Your task to perform on an android device: Clear the cart on newegg.com. Add "lg ultragear" to the cart on newegg.com Image 0: 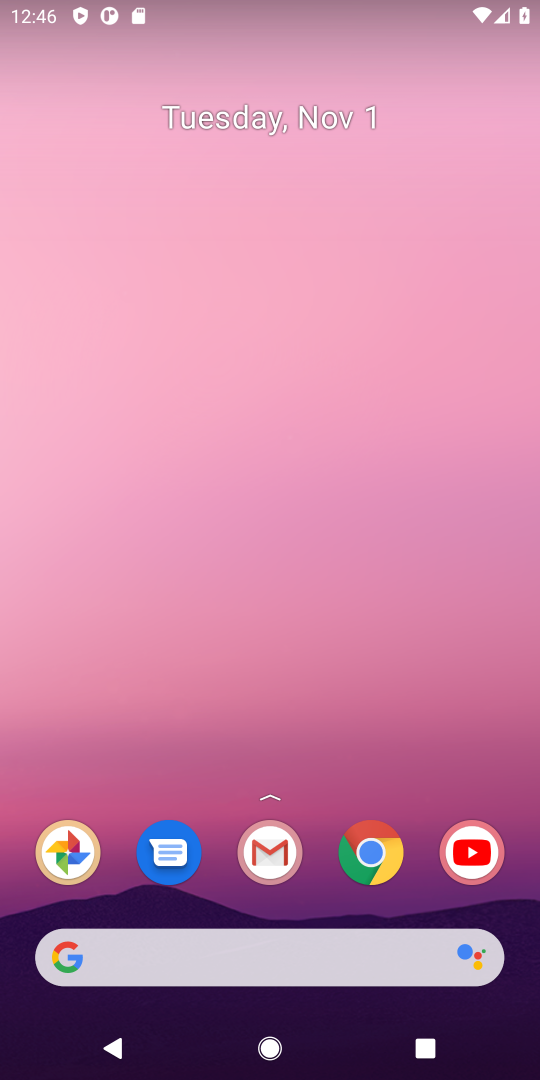
Step 0: click (390, 858)
Your task to perform on an android device: Clear the cart on newegg.com. Add "lg ultragear" to the cart on newegg.com Image 1: 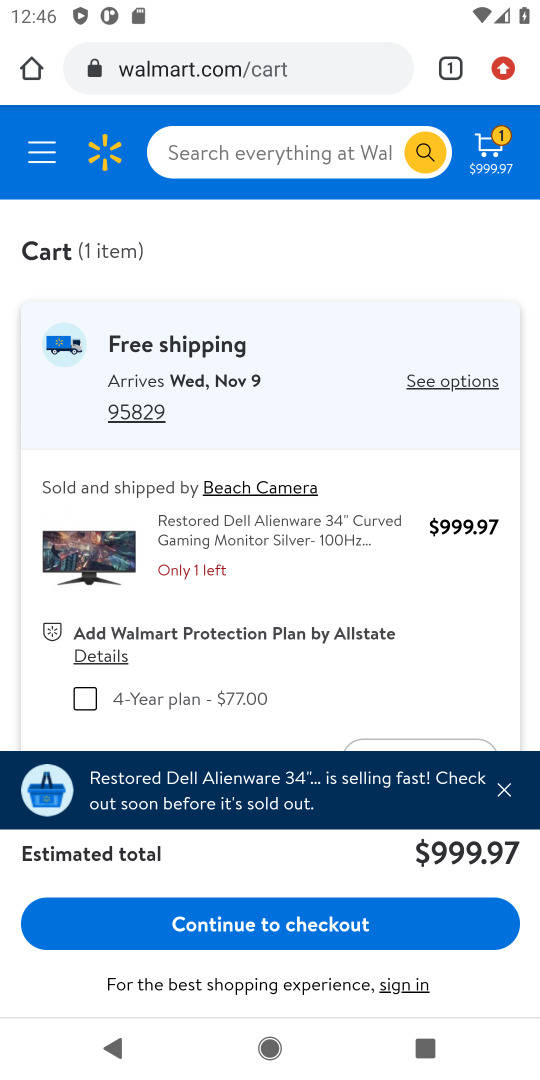
Step 1: click (291, 62)
Your task to perform on an android device: Clear the cart on newegg.com. Add "lg ultragear" to the cart on newegg.com Image 2: 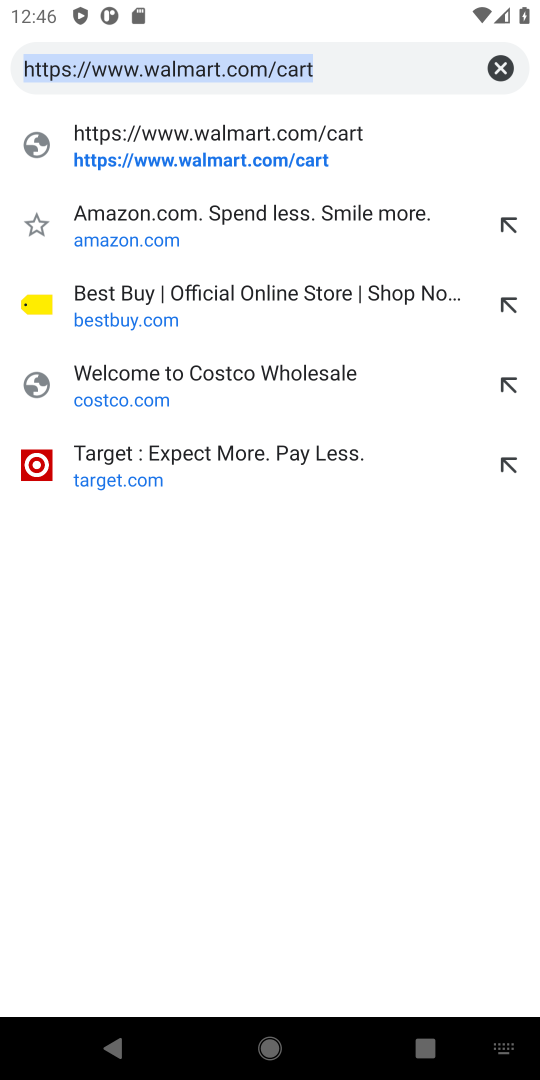
Step 2: type "newegg.com"
Your task to perform on an android device: Clear the cart on newegg.com. Add "lg ultragear" to the cart on newegg.com Image 3: 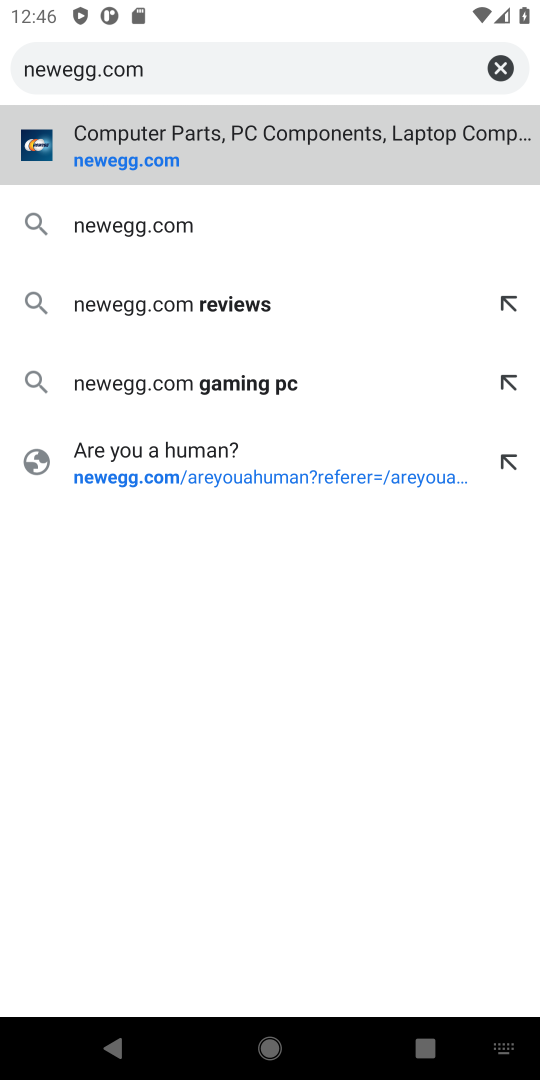
Step 3: type ""
Your task to perform on an android device: Clear the cart on newegg.com. Add "lg ultragear" to the cart on newegg.com Image 4: 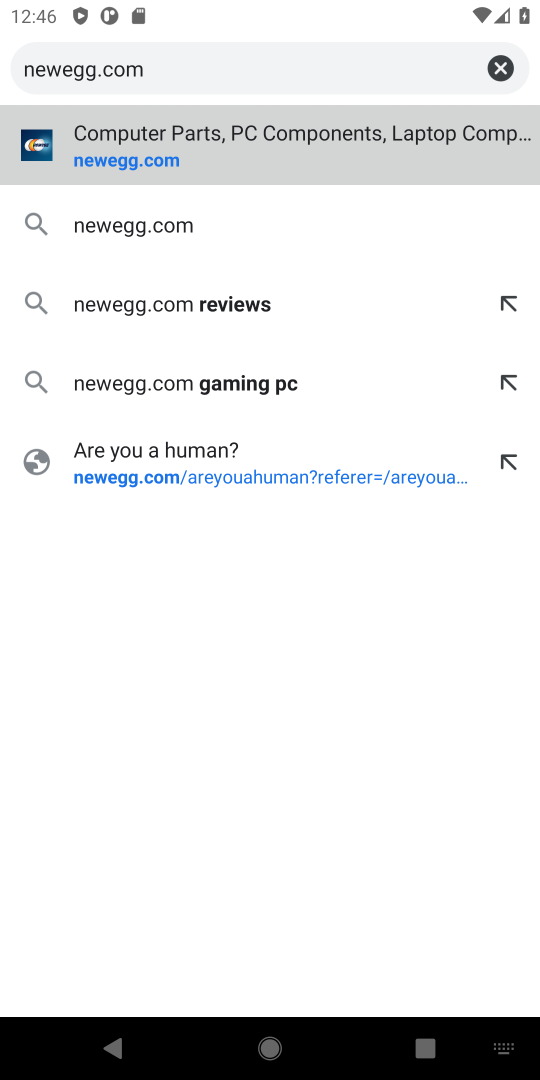
Step 4: press enter
Your task to perform on an android device: Clear the cart on newegg.com. Add "lg ultragear" to the cart on newegg.com Image 5: 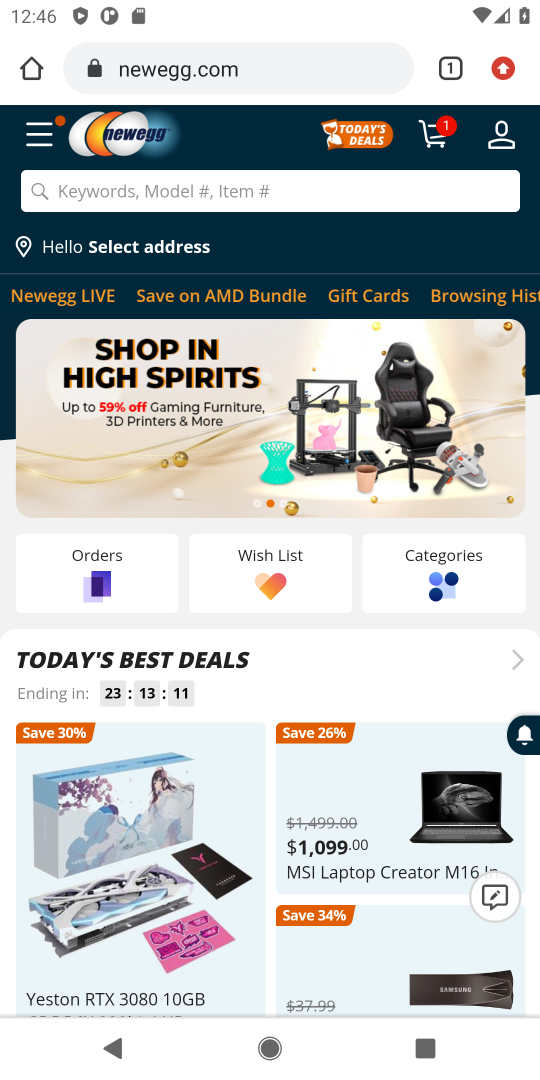
Step 5: click (437, 131)
Your task to perform on an android device: Clear the cart on newegg.com. Add "lg ultragear" to the cart on newegg.com Image 6: 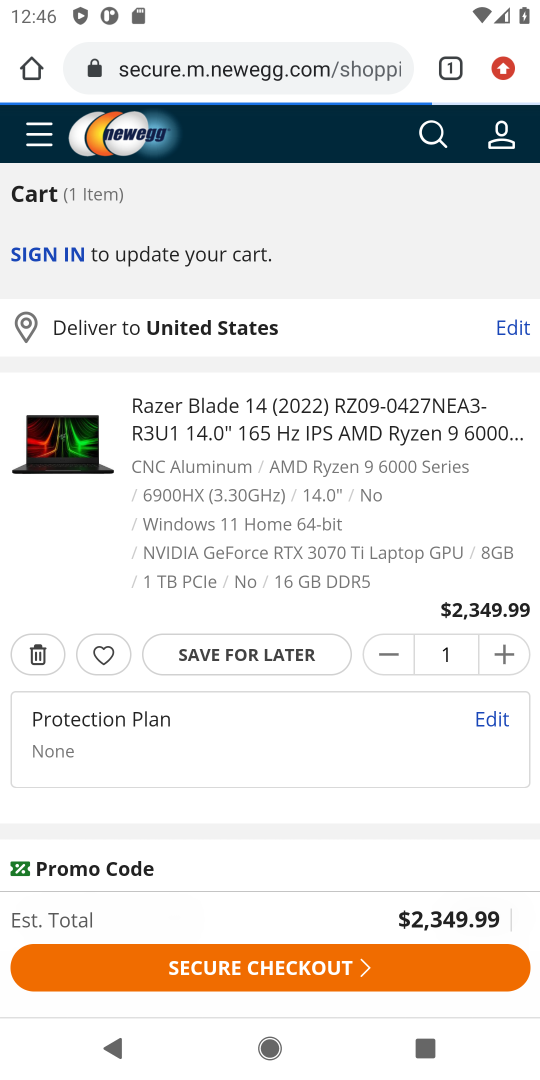
Step 6: click (29, 651)
Your task to perform on an android device: Clear the cart on newegg.com. Add "lg ultragear" to the cart on newegg.com Image 7: 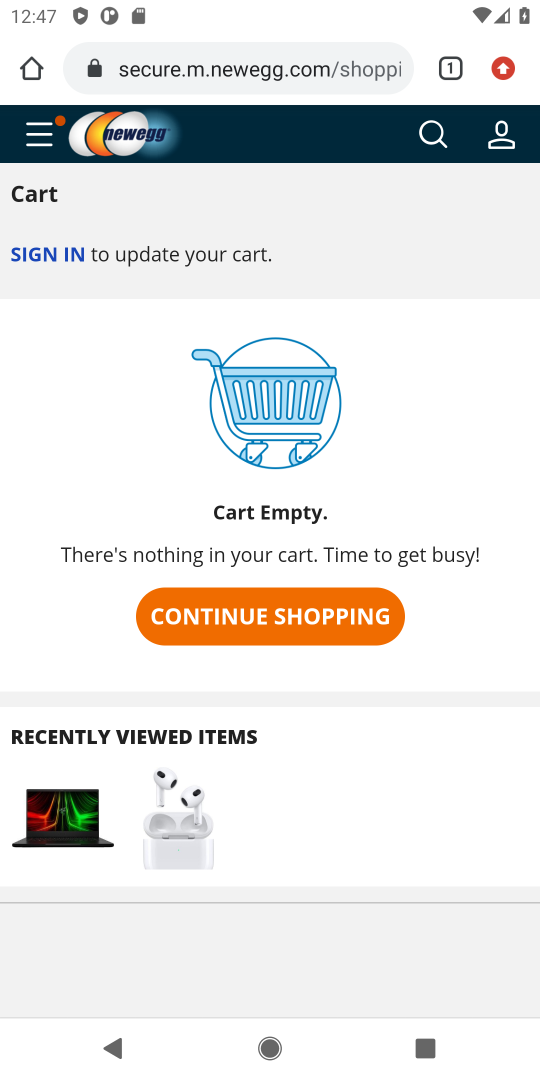
Step 7: click (338, 637)
Your task to perform on an android device: Clear the cart on newegg.com. Add "lg ultragear" to the cart on newegg.com Image 8: 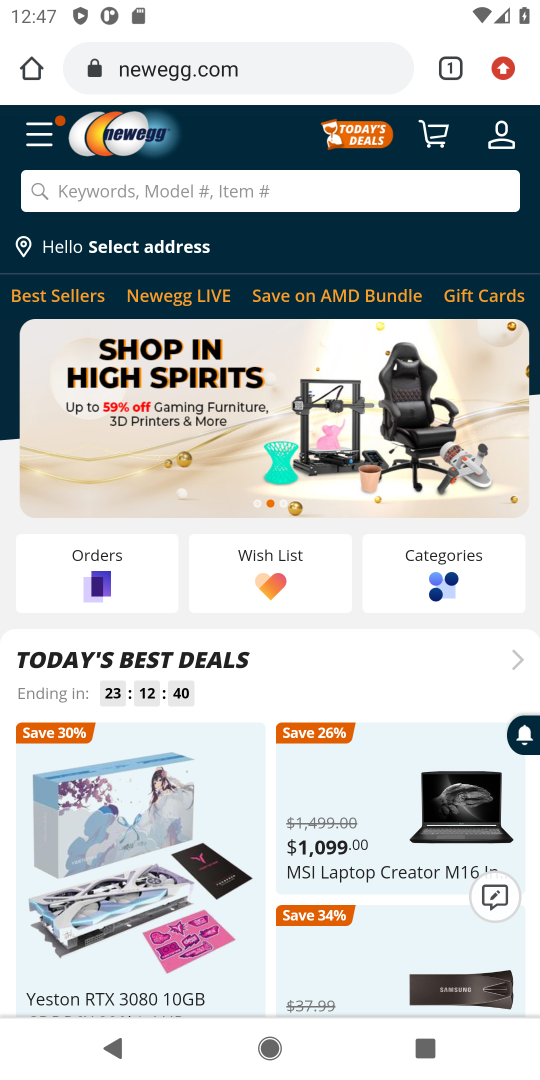
Step 8: click (185, 201)
Your task to perform on an android device: Clear the cart on newegg.com. Add "lg ultragear" to the cart on newegg.com Image 9: 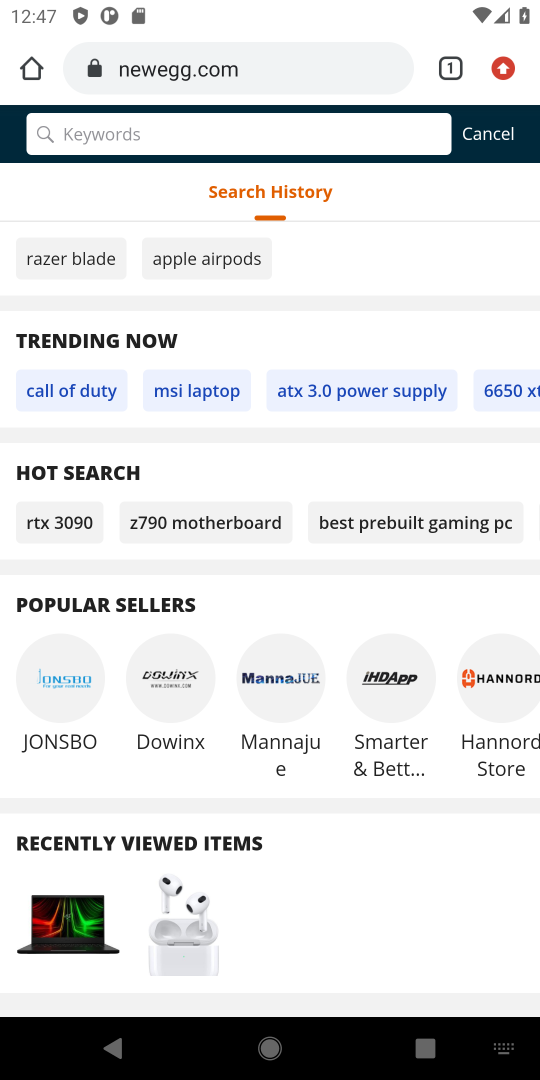
Step 9: type "lg ultragear"
Your task to perform on an android device: Clear the cart on newegg.com. Add "lg ultragear" to the cart on newegg.com Image 10: 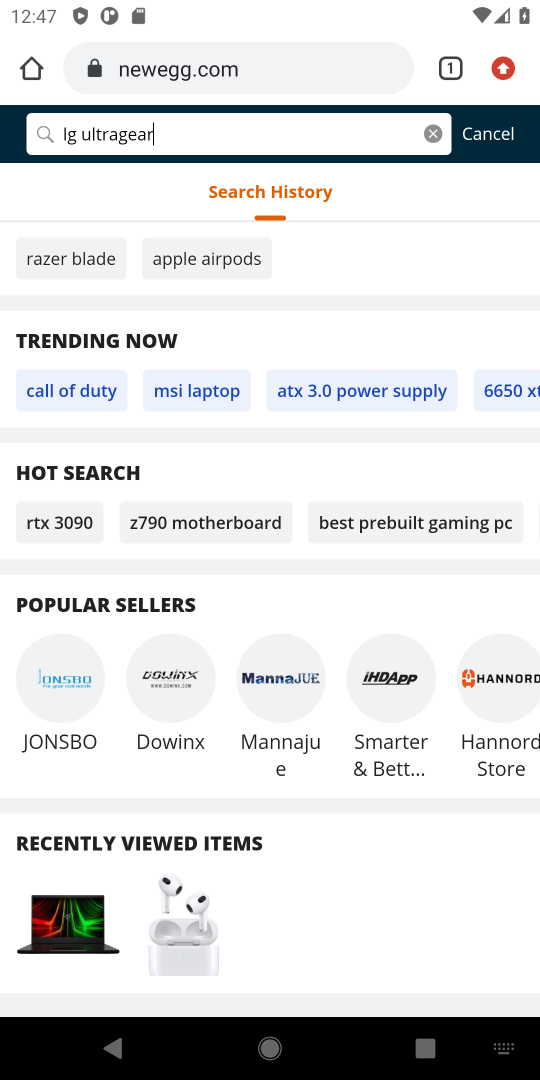
Step 10: type ""
Your task to perform on an android device: Clear the cart on newegg.com. Add "lg ultragear" to the cart on newegg.com Image 11: 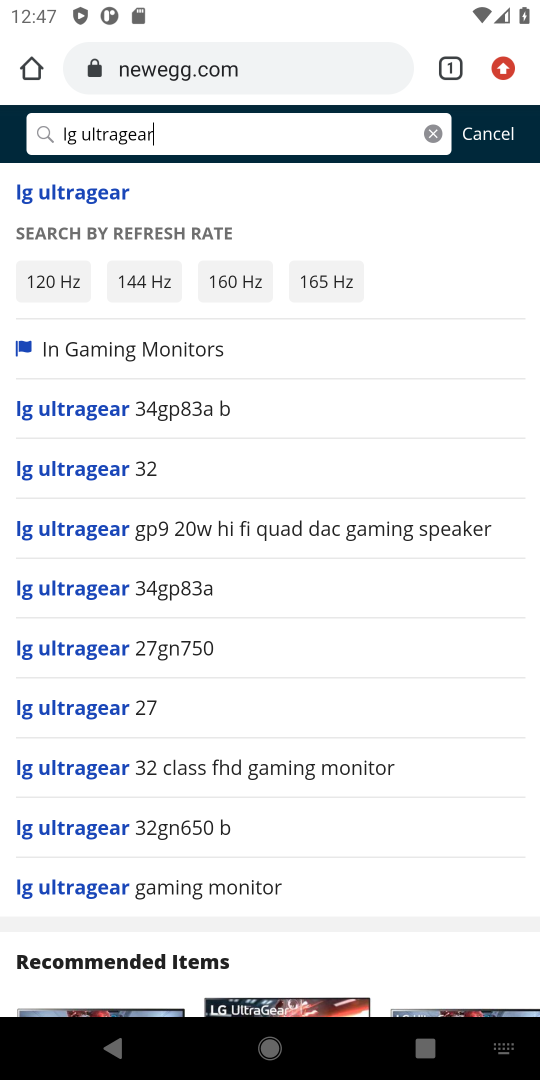
Step 11: press enter
Your task to perform on an android device: Clear the cart on newegg.com. Add "lg ultragear" to the cart on newegg.com Image 12: 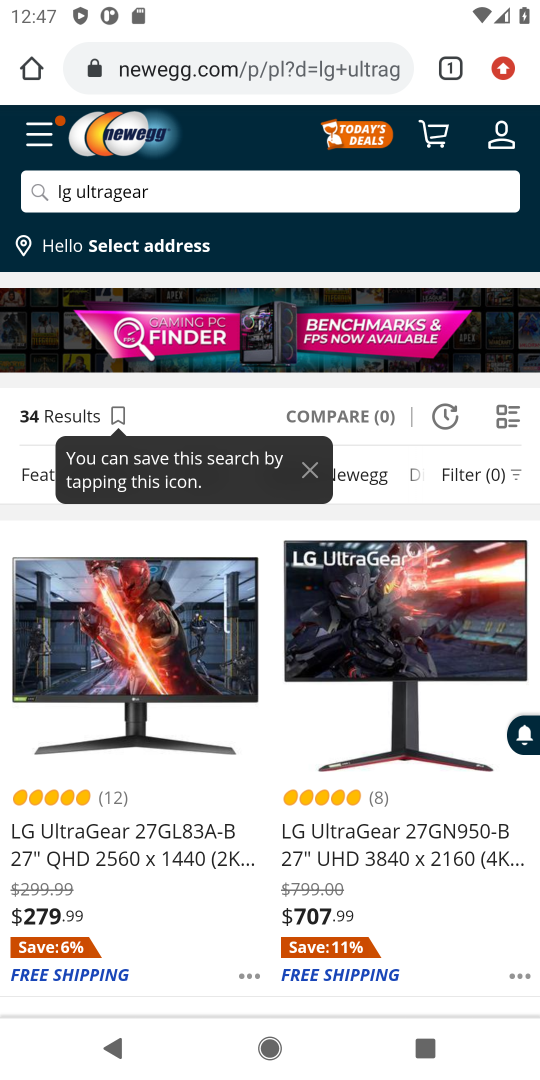
Step 12: click (157, 840)
Your task to perform on an android device: Clear the cart on newegg.com. Add "lg ultragear" to the cart on newegg.com Image 13: 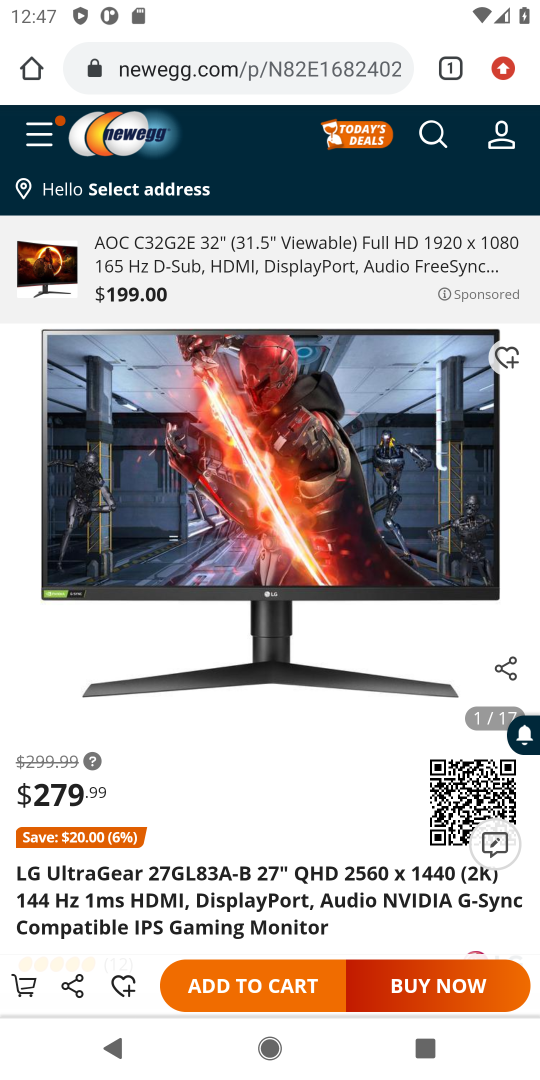
Step 13: click (273, 990)
Your task to perform on an android device: Clear the cart on newegg.com. Add "lg ultragear" to the cart on newegg.com Image 14: 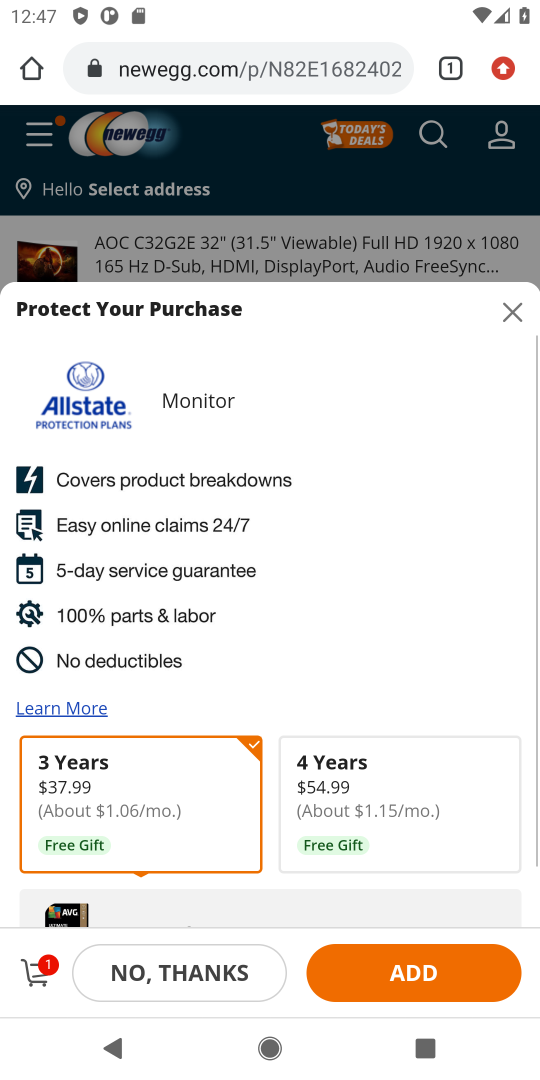
Step 14: click (199, 987)
Your task to perform on an android device: Clear the cart on newegg.com. Add "lg ultragear" to the cart on newegg.com Image 15: 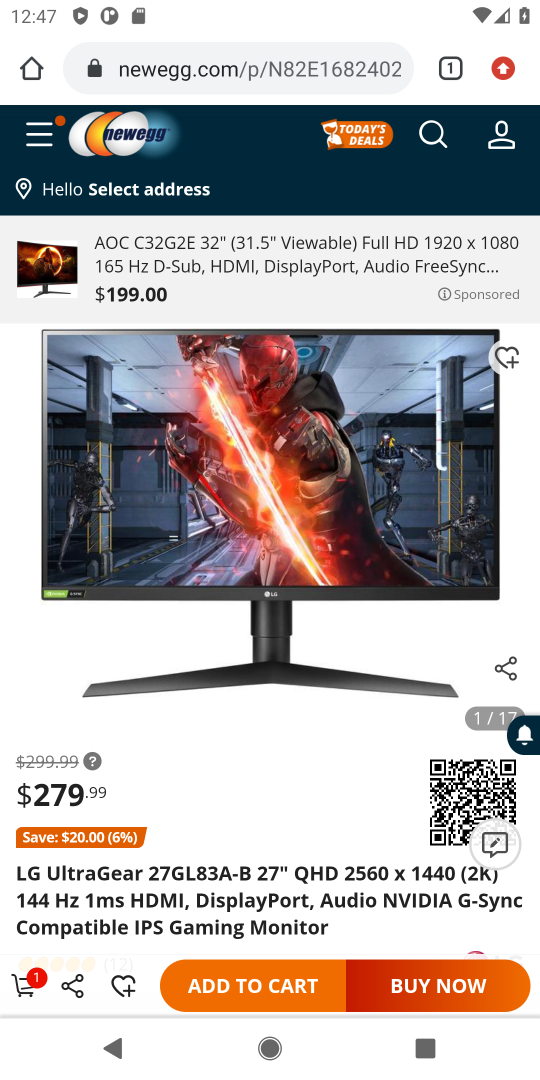
Step 15: click (24, 981)
Your task to perform on an android device: Clear the cart on newegg.com. Add "lg ultragear" to the cart on newegg.com Image 16: 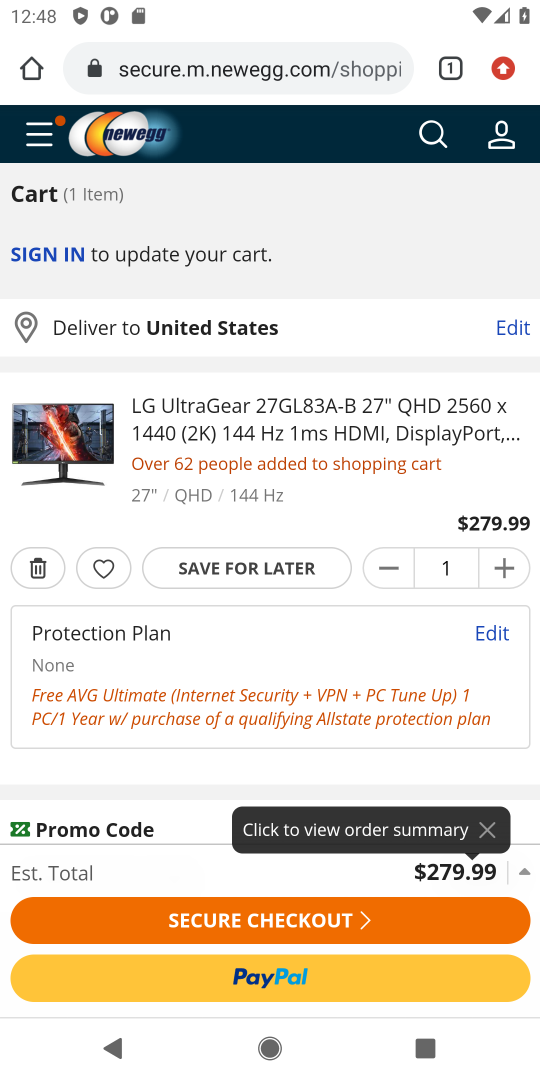
Step 16: task complete